Your task to perform on an android device: Open Youtube and go to the subscriptions tab Image 0: 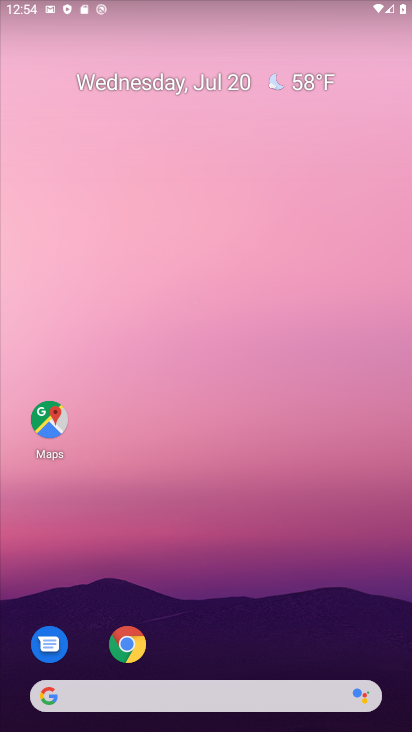
Step 0: drag from (206, 649) to (204, 174)
Your task to perform on an android device: Open Youtube and go to the subscriptions tab Image 1: 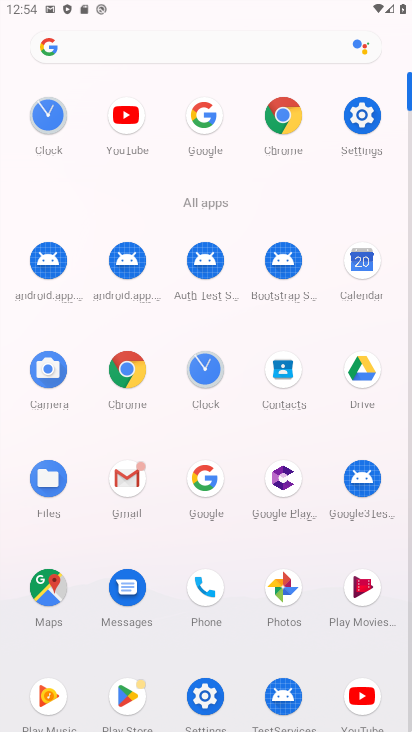
Step 1: click (125, 112)
Your task to perform on an android device: Open Youtube and go to the subscriptions tab Image 2: 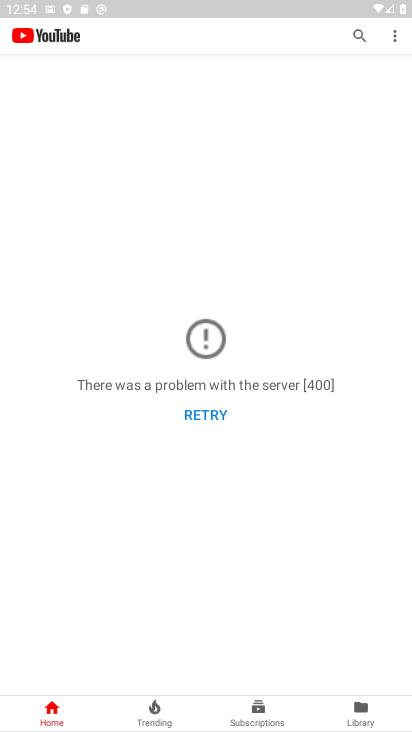
Step 2: click (256, 708)
Your task to perform on an android device: Open Youtube and go to the subscriptions tab Image 3: 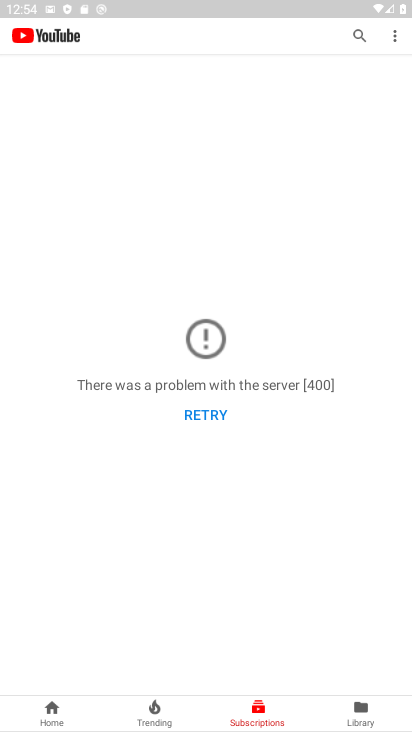
Step 3: task complete